Your task to perform on an android device: Clear the cart on target.com. Search for razer blade on target.com, select the first entry, and add it to the cart. Image 0: 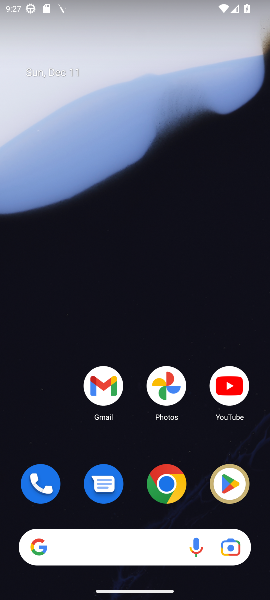
Step 0: click (170, 488)
Your task to perform on an android device: Clear the cart on target.com. Search for razer blade on target.com, select the first entry, and add it to the cart. Image 1: 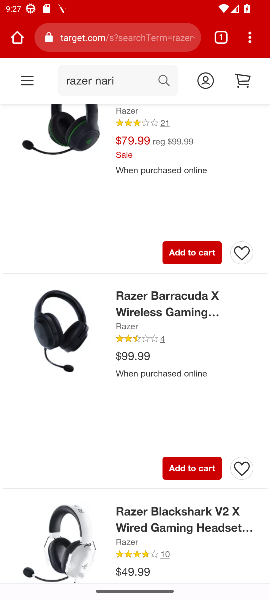
Step 1: click (246, 81)
Your task to perform on an android device: Clear the cart on target.com. Search for razer blade on target.com, select the first entry, and add it to the cart. Image 2: 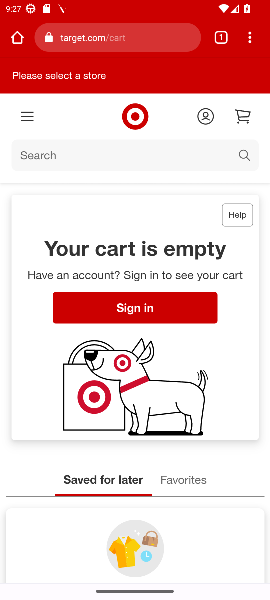
Step 2: click (120, 152)
Your task to perform on an android device: Clear the cart on target.com. Search for razer blade on target.com, select the first entry, and add it to the cart. Image 3: 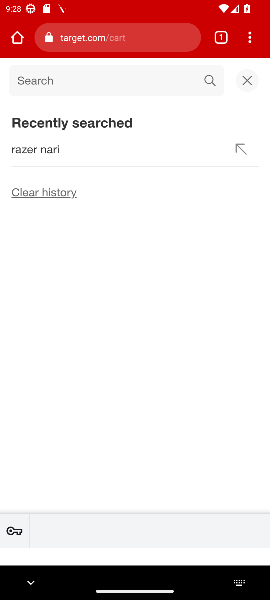
Step 3: type "razer blade"
Your task to perform on an android device: Clear the cart on target.com. Search for razer blade on target.com, select the first entry, and add it to the cart. Image 4: 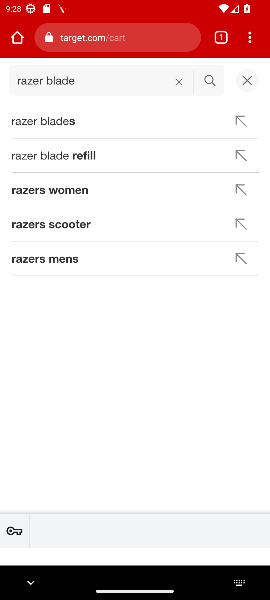
Step 4: click (208, 87)
Your task to perform on an android device: Clear the cart on target.com. Search for razer blade on target.com, select the first entry, and add it to the cart. Image 5: 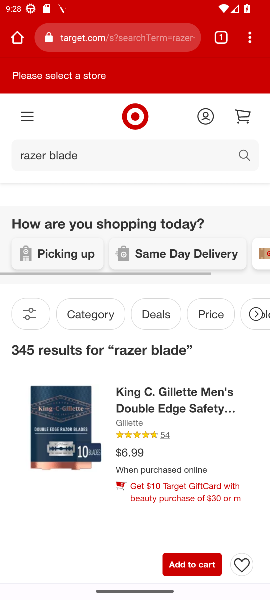
Step 5: task complete